Your task to perform on an android device: open app "Adobe Acrobat Reader: Edit PDF" Image 0: 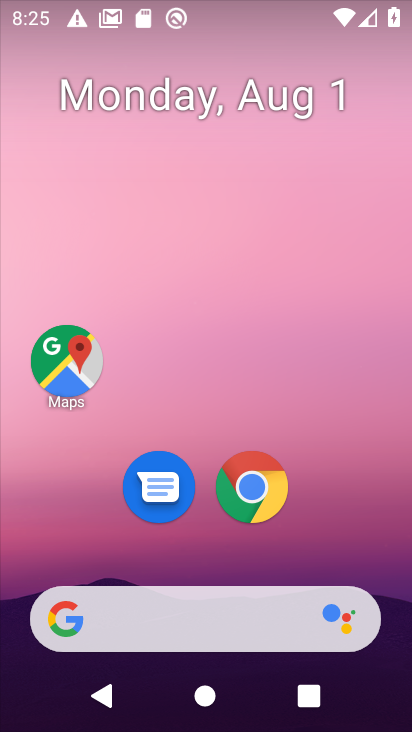
Step 0: press home button
Your task to perform on an android device: open app "Adobe Acrobat Reader: Edit PDF" Image 1: 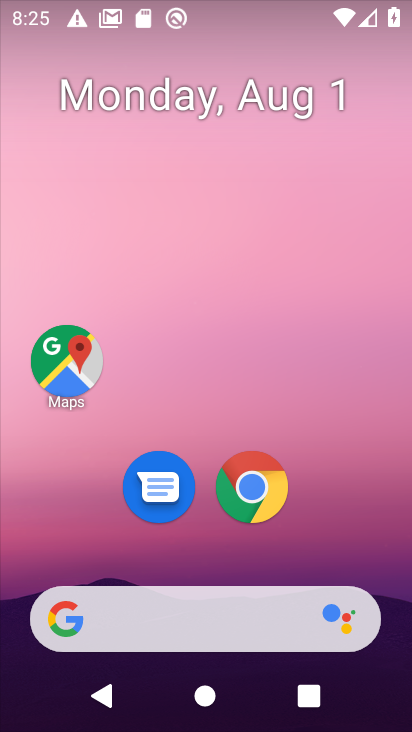
Step 1: drag from (377, 554) to (346, 71)
Your task to perform on an android device: open app "Adobe Acrobat Reader: Edit PDF" Image 2: 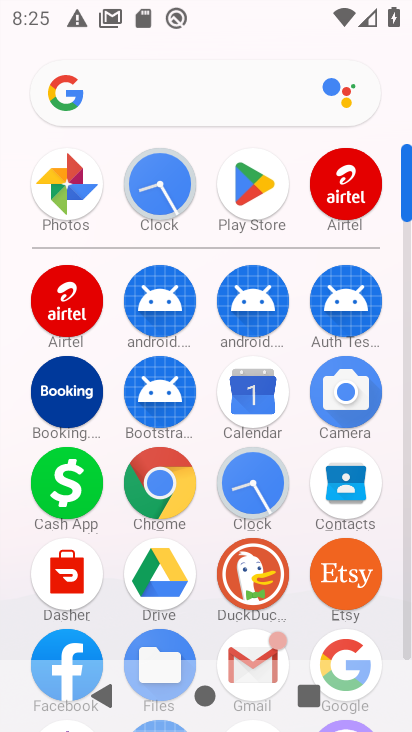
Step 2: click (255, 190)
Your task to perform on an android device: open app "Adobe Acrobat Reader: Edit PDF" Image 3: 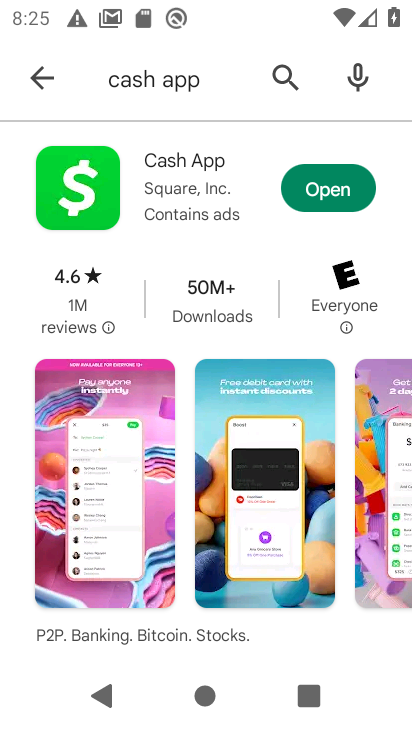
Step 3: click (282, 75)
Your task to perform on an android device: open app "Adobe Acrobat Reader: Edit PDF" Image 4: 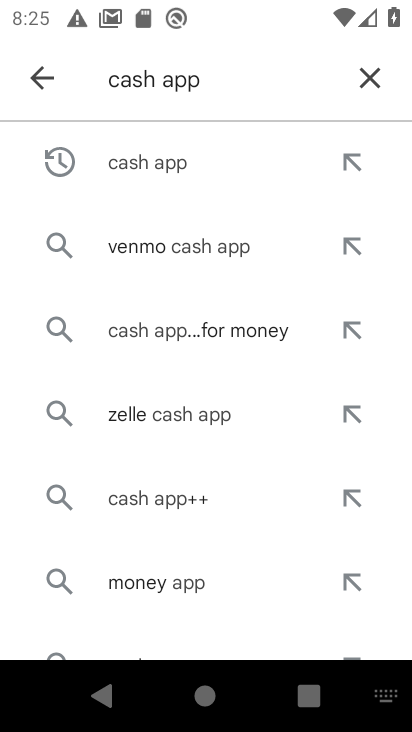
Step 4: click (363, 77)
Your task to perform on an android device: open app "Adobe Acrobat Reader: Edit PDF" Image 5: 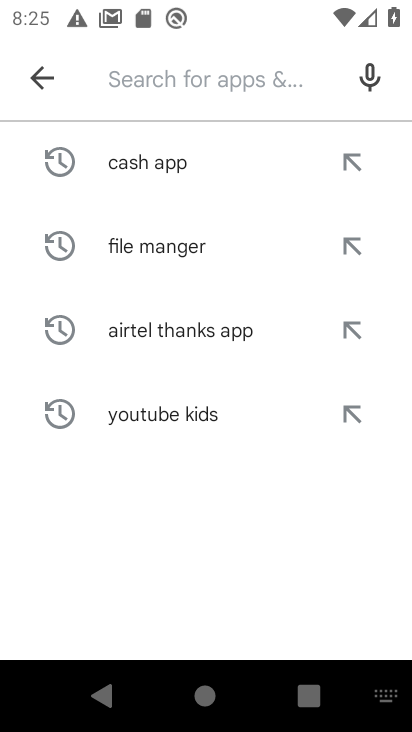
Step 5: click (264, 100)
Your task to perform on an android device: open app "Adobe Acrobat Reader: Edit PDF" Image 6: 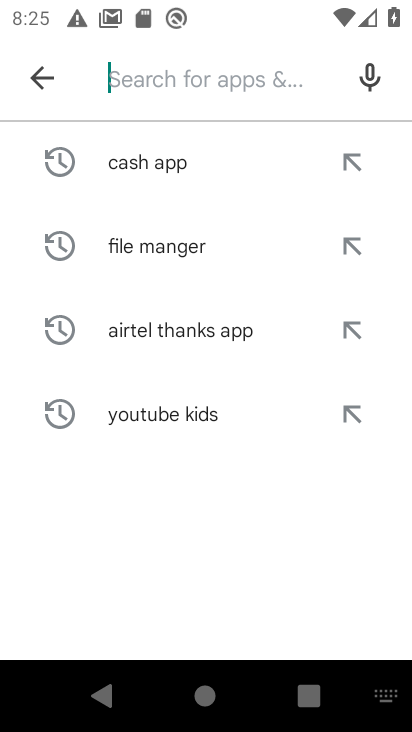
Step 6: type "Adobe Acrobat Reader: Edit PDF"
Your task to perform on an android device: open app "Adobe Acrobat Reader: Edit PDF" Image 7: 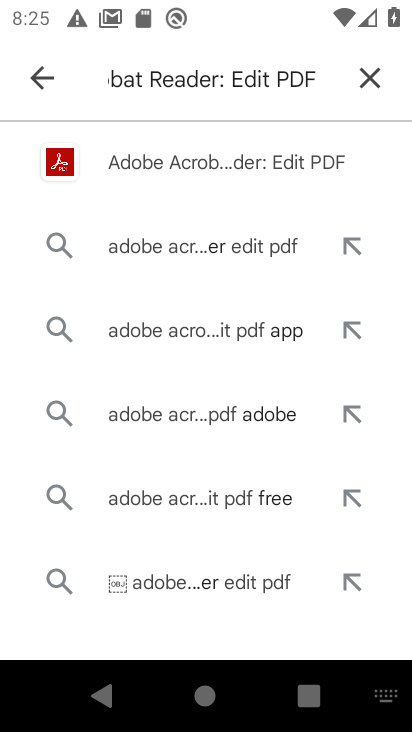
Step 7: click (303, 151)
Your task to perform on an android device: open app "Adobe Acrobat Reader: Edit PDF" Image 8: 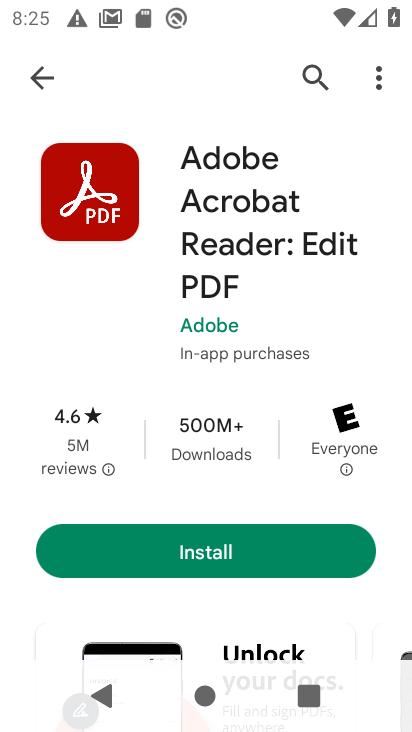
Step 8: task complete